Your task to perform on an android device: delete location history Image 0: 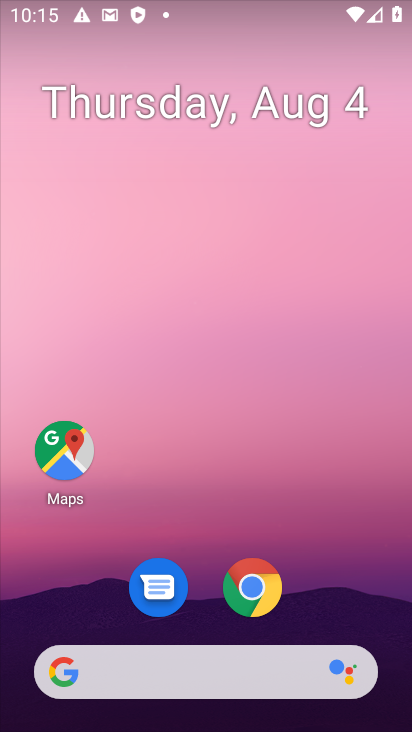
Step 0: drag from (176, 649) to (222, 176)
Your task to perform on an android device: delete location history Image 1: 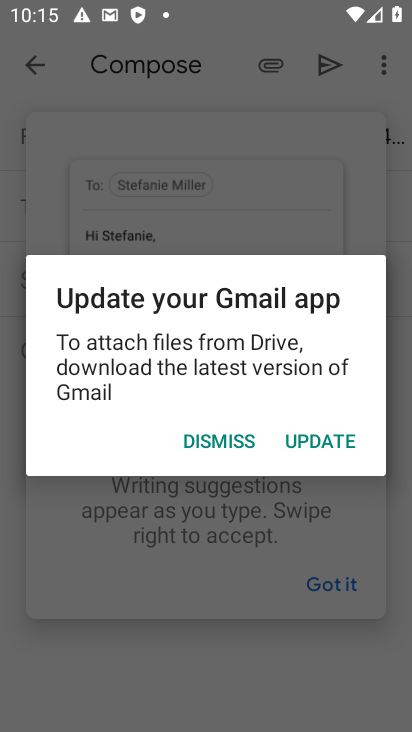
Step 1: press home button
Your task to perform on an android device: delete location history Image 2: 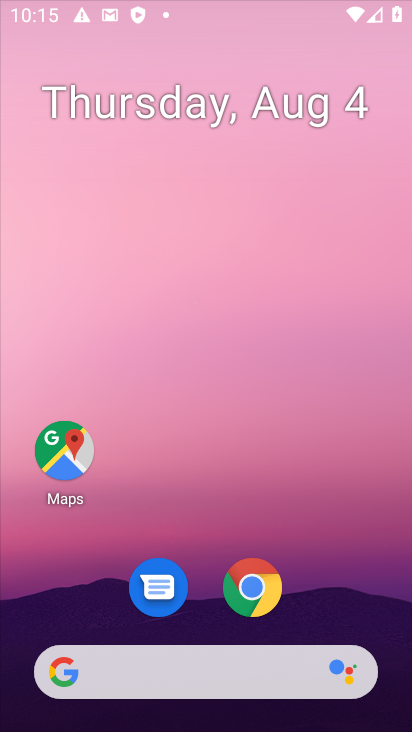
Step 2: drag from (193, 638) to (224, 42)
Your task to perform on an android device: delete location history Image 3: 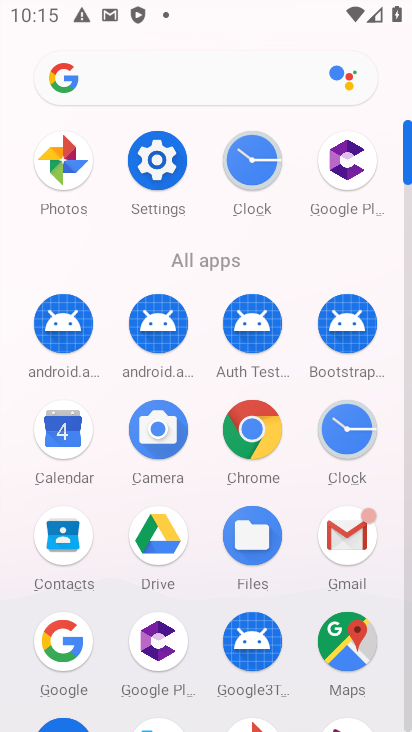
Step 3: click (331, 639)
Your task to perform on an android device: delete location history Image 4: 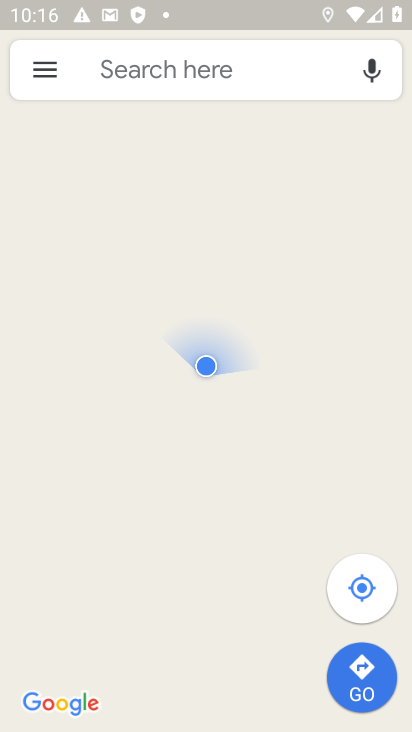
Step 4: click (54, 71)
Your task to perform on an android device: delete location history Image 5: 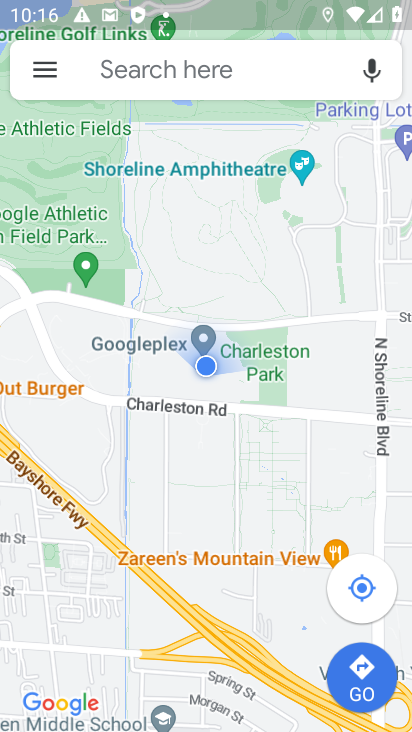
Step 5: click (40, 60)
Your task to perform on an android device: delete location history Image 6: 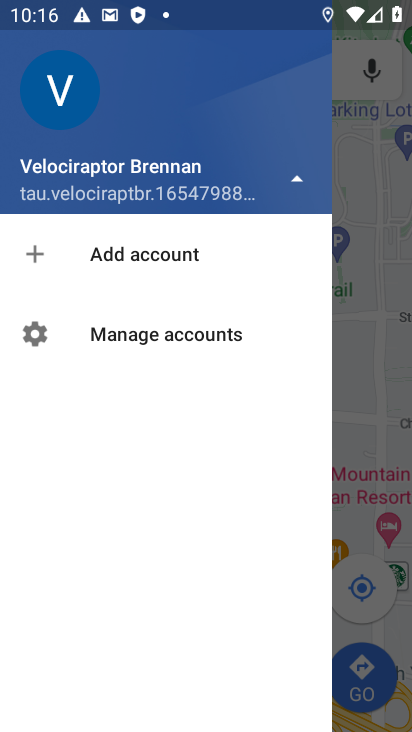
Step 6: click (380, 172)
Your task to perform on an android device: delete location history Image 7: 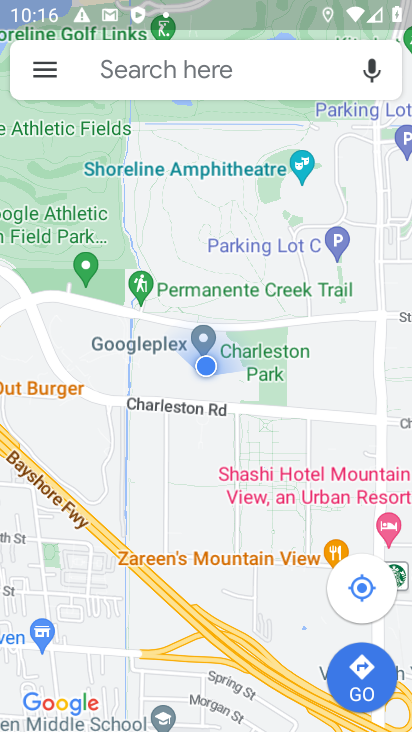
Step 7: click (40, 68)
Your task to perform on an android device: delete location history Image 8: 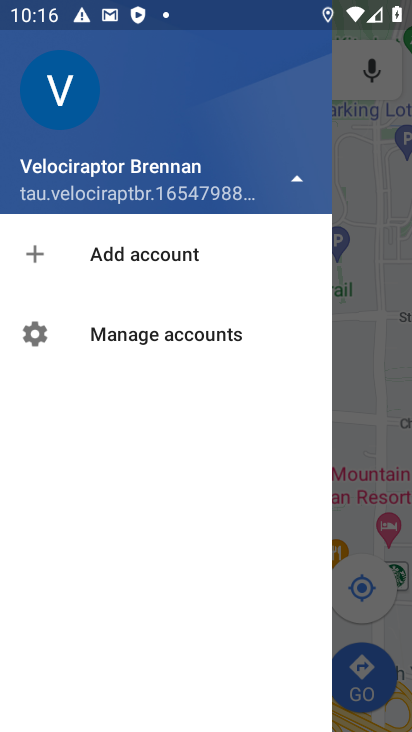
Step 8: click (133, 330)
Your task to perform on an android device: delete location history Image 9: 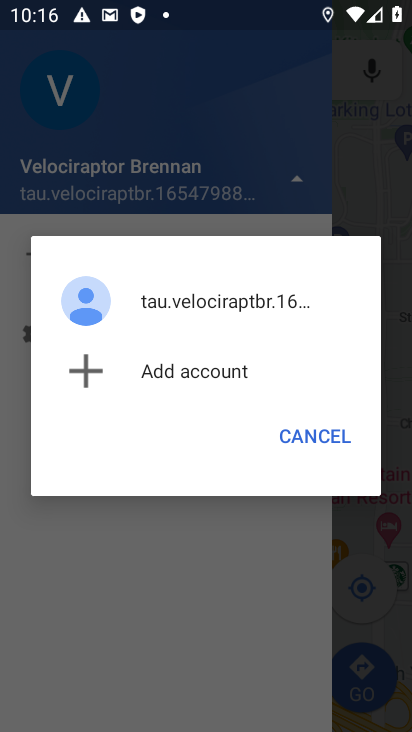
Step 9: click (307, 425)
Your task to perform on an android device: delete location history Image 10: 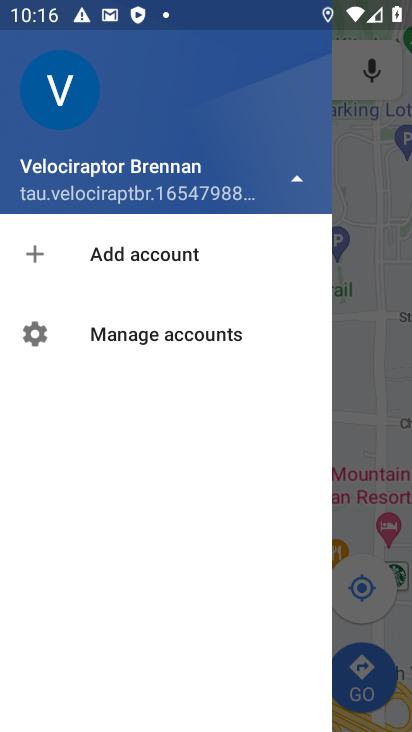
Step 10: click (355, 287)
Your task to perform on an android device: delete location history Image 11: 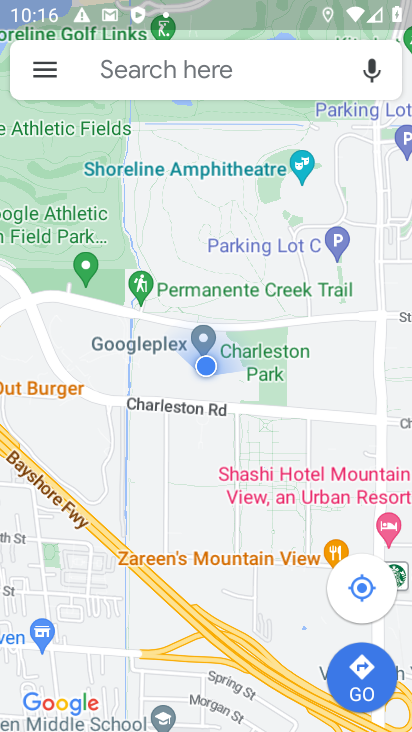
Step 11: click (53, 73)
Your task to perform on an android device: delete location history Image 12: 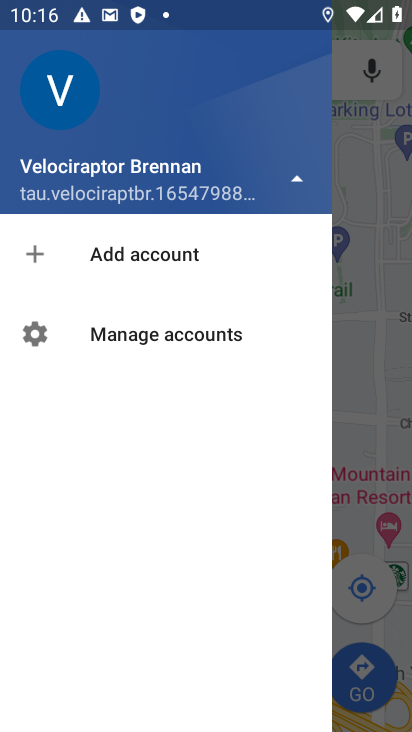
Step 12: click (105, 178)
Your task to perform on an android device: delete location history Image 13: 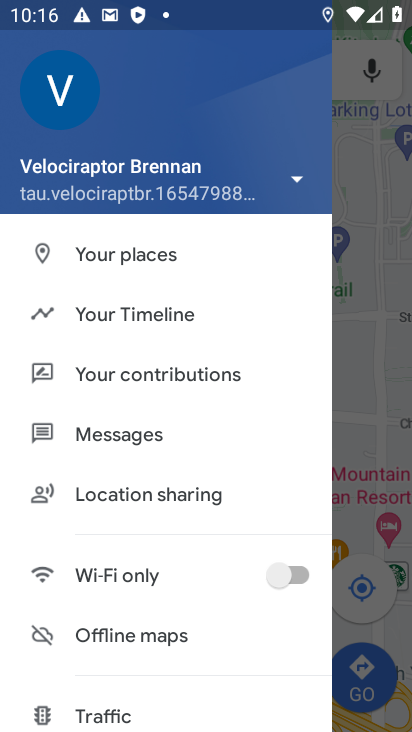
Step 13: drag from (137, 504) to (211, 237)
Your task to perform on an android device: delete location history Image 14: 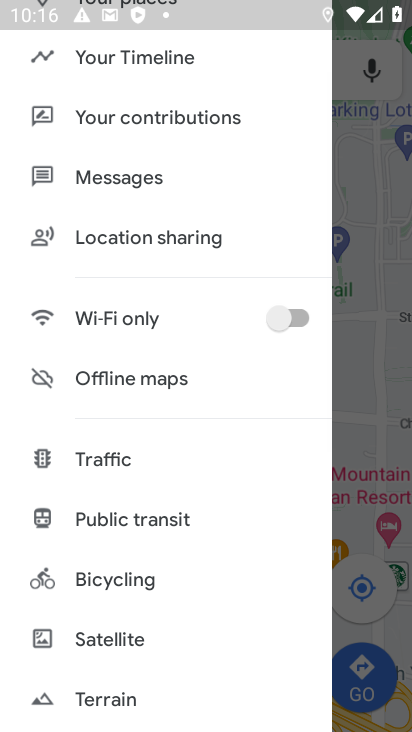
Step 14: drag from (153, 707) to (218, 313)
Your task to perform on an android device: delete location history Image 15: 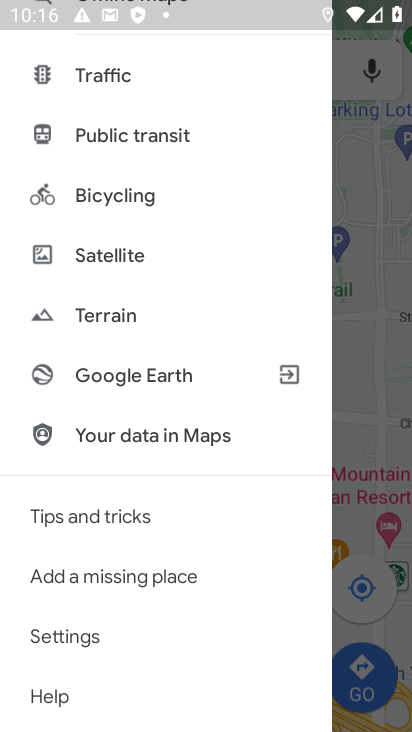
Step 15: drag from (161, 75) to (105, 699)
Your task to perform on an android device: delete location history Image 16: 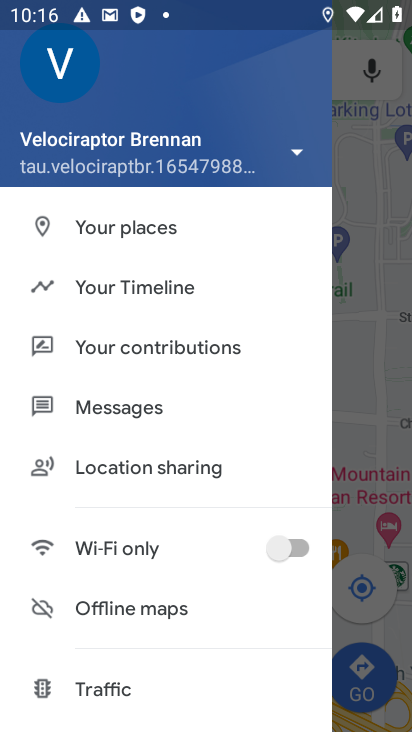
Step 16: click (135, 292)
Your task to perform on an android device: delete location history Image 17: 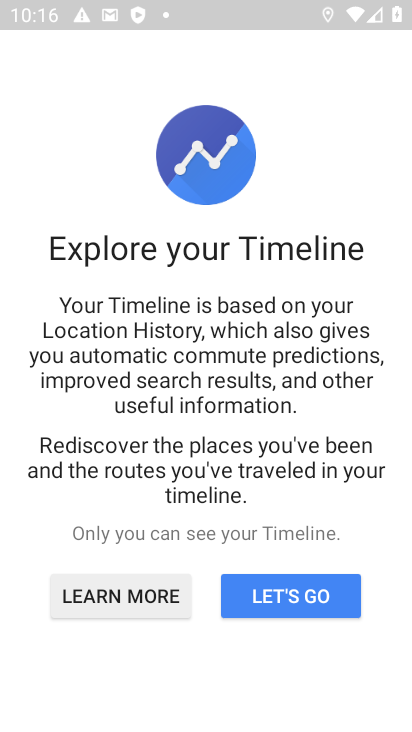
Step 17: click (264, 606)
Your task to perform on an android device: delete location history Image 18: 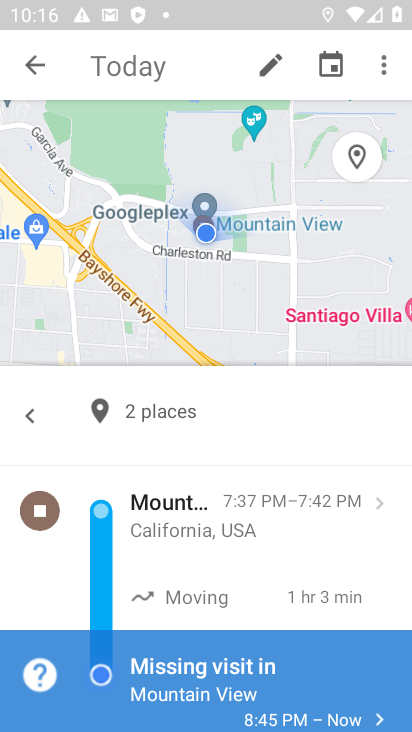
Step 18: click (394, 60)
Your task to perform on an android device: delete location history Image 19: 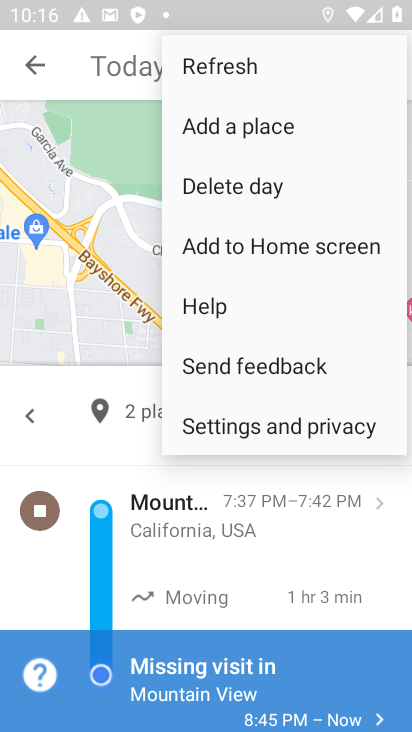
Step 19: click (233, 428)
Your task to perform on an android device: delete location history Image 20: 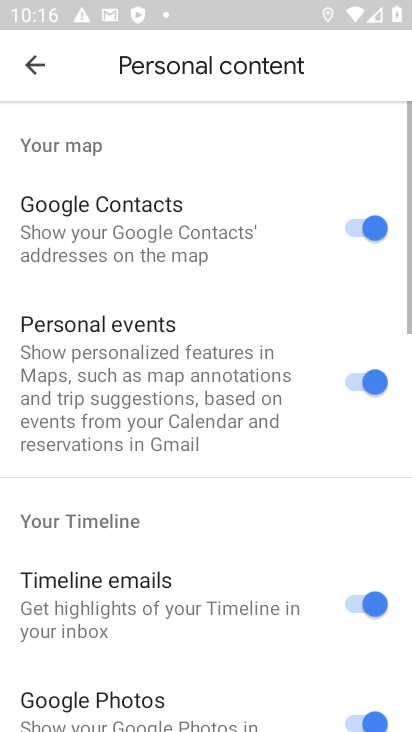
Step 20: drag from (185, 670) to (245, 183)
Your task to perform on an android device: delete location history Image 21: 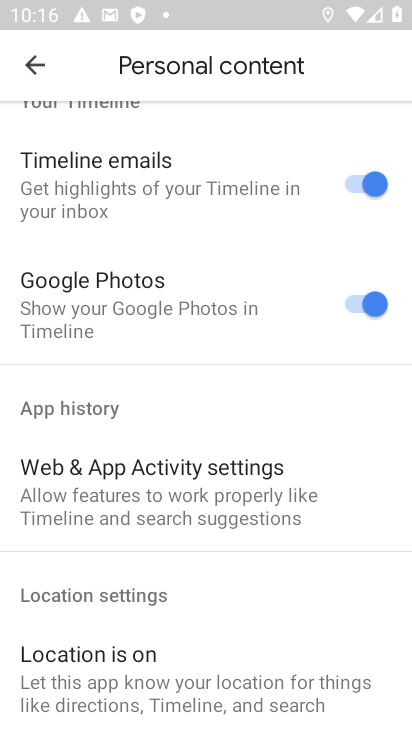
Step 21: drag from (183, 641) to (275, 154)
Your task to perform on an android device: delete location history Image 22: 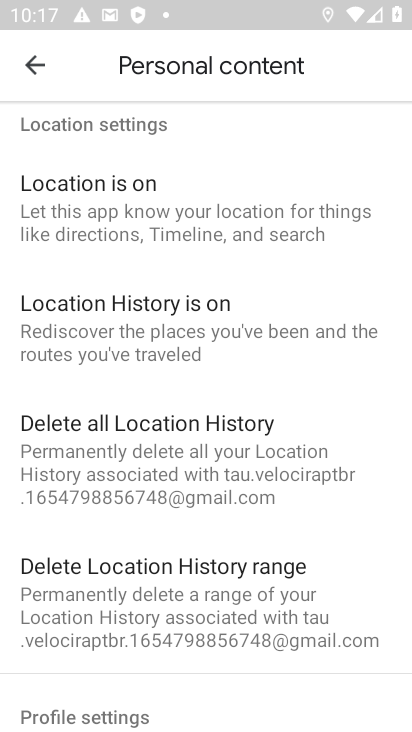
Step 22: click (196, 462)
Your task to perform on an android device: delete location history Image 23: 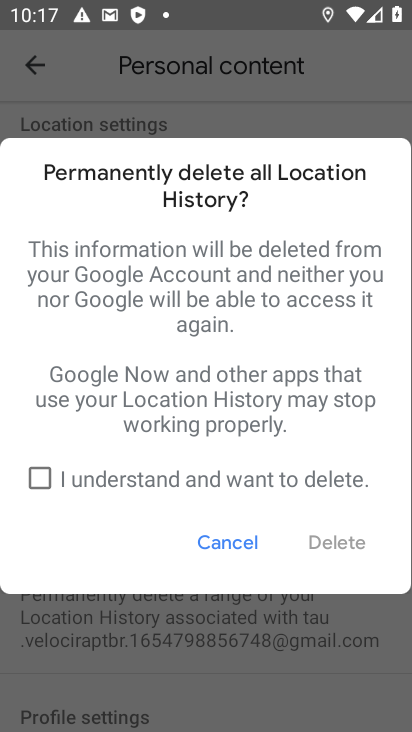
Step 23: click (47, 468)
Your task to perform on an android device: delete location history Image 24: 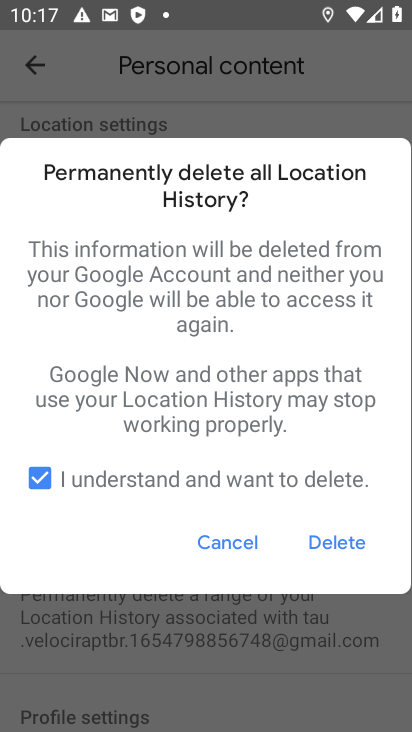
Step 24: click (328, 546)
Your task to perform on an android device: delete location history Image 25: 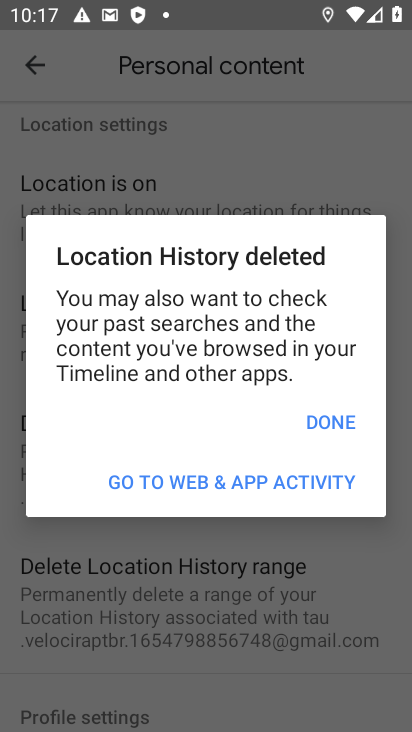
Step 25: click (336, 427)
Your task to perform on an android device: delete location history Image 26: 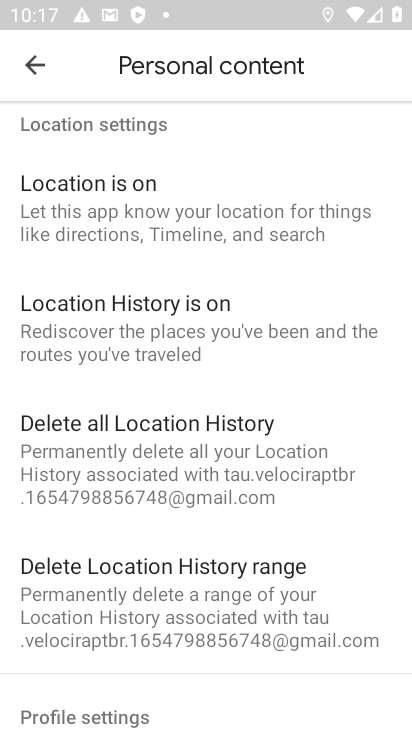
Step 26: task complete